Your task to perform on an android device: Go to accessibility settings Image 0: 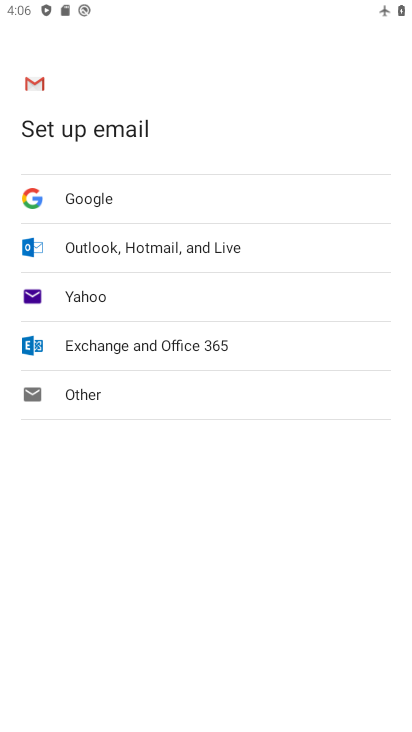
Step 0: press home button
Your task to perform on an android device: Go to accessibility settings Image 1: 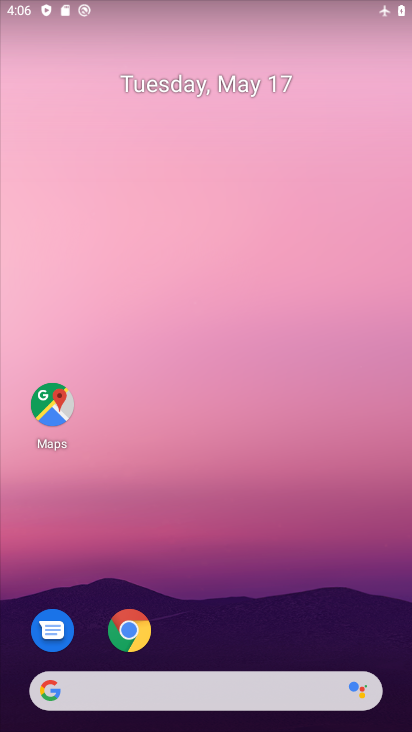
Step 1: drag from (239, 724) to (238, 154)
Your task to perform on an android device: Go to accessibility settings Image 2: 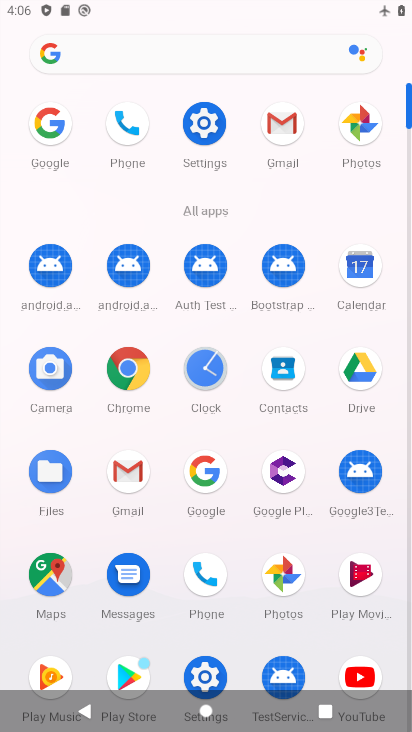
Step 2: click (203, 127)
Your task to perform on an android device: Go to accessibility settings Image 3: 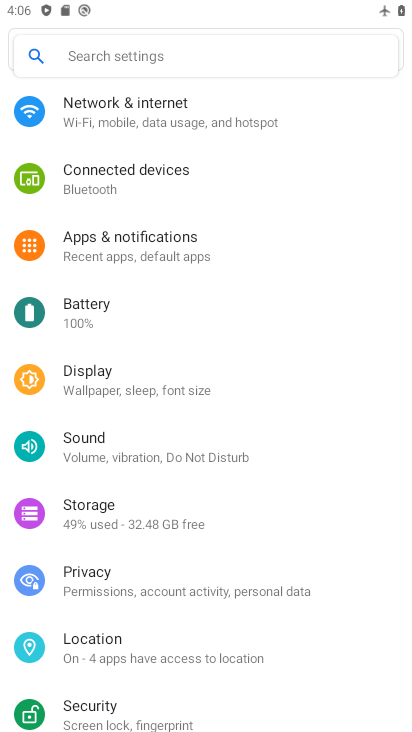
Step 3: drag from (130, 634) to (155, 335)
Your task to perform on an android device: Go to accessibility settings Image 4: 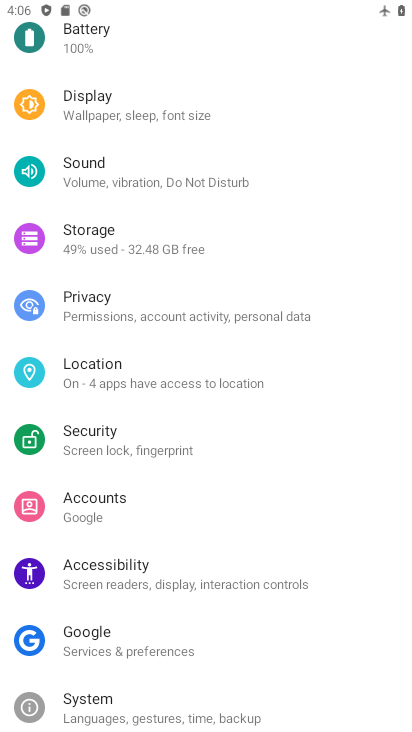
Step 4: click (97, 573)
Your task to perform on an android device: Go to accessibility settings Image 5: 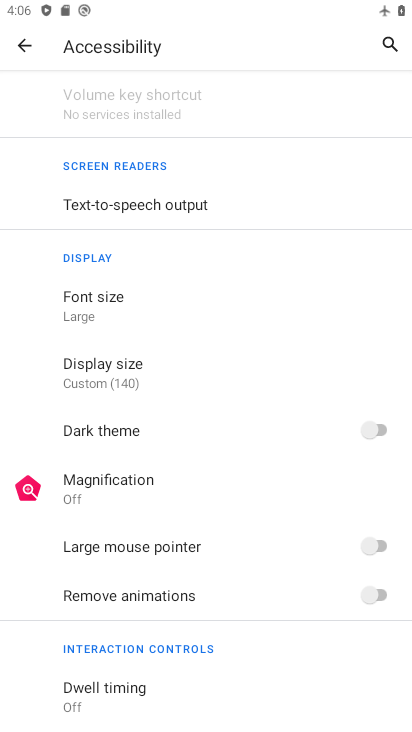
Step 5: task complete